Your task to perform on an android device: Open Google Image 0: 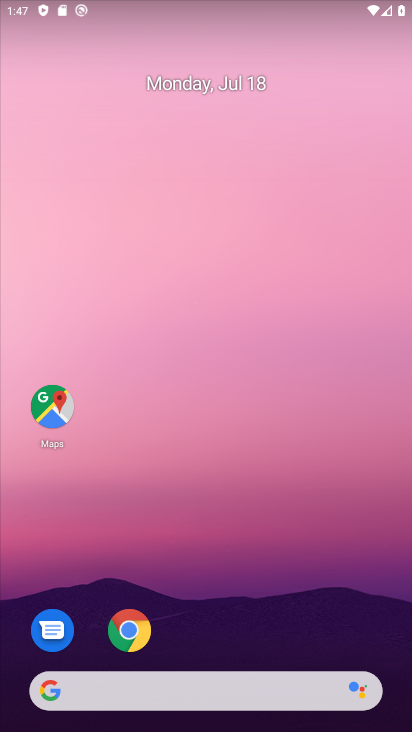
Step 0: drag from (185, 679) to (105, 55)
Your task to perform on an android device: Open Google Image 1: 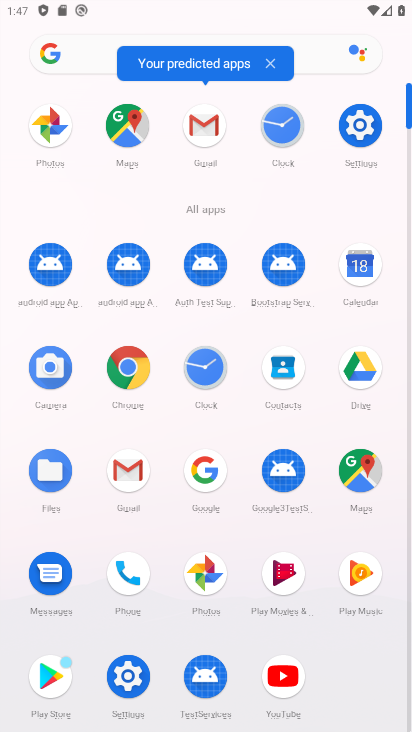
Step 1: click (198, 470)
Your task to perform on an android device: Open Google Image 2: 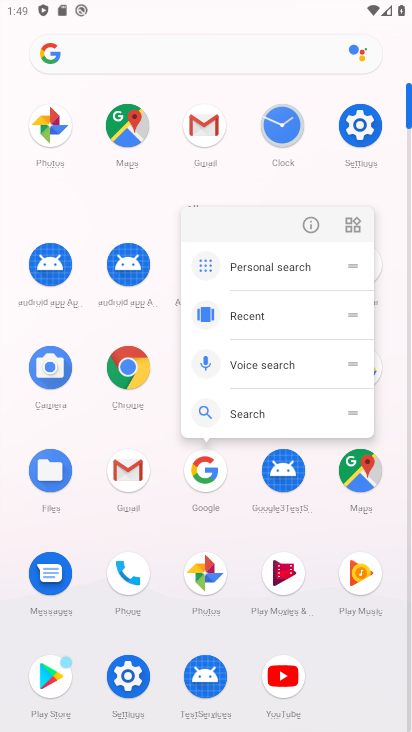
Step 2: click (205, 476)
Your task to perform on an android device: Open Google Image 3: 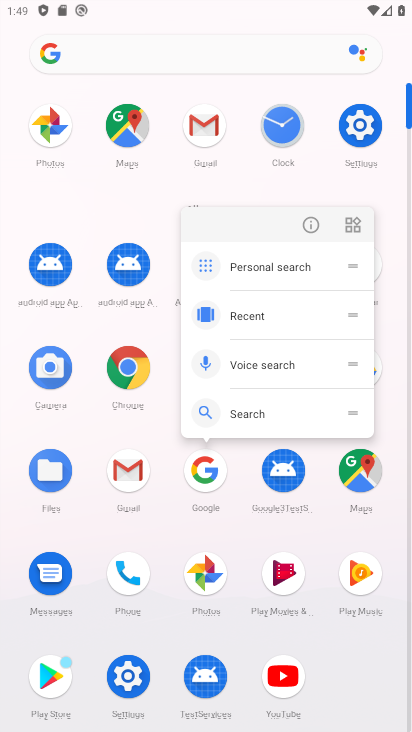
Step 3: click (197, 456)
Your task to perform on an android device: Open Google Image 4: 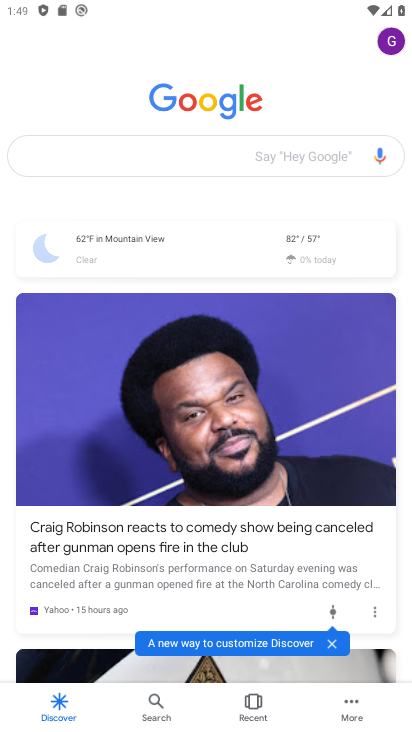
Step 4: task complete